Your task to perform on an android device: Go to notification settings Image 0: 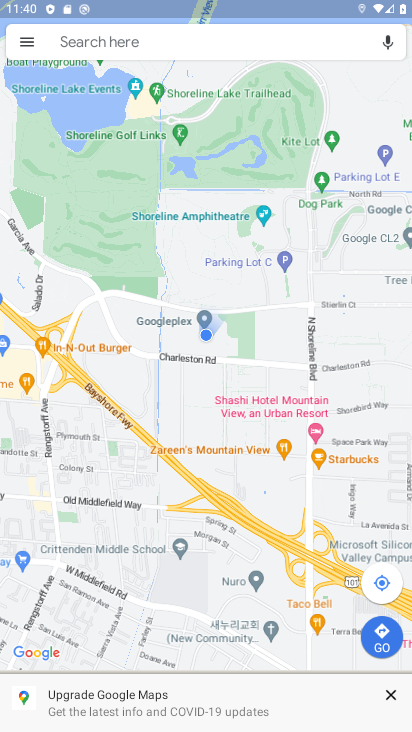
Step 0: press home button
Your task to perform on an android device: Go to notification settings Image 1: 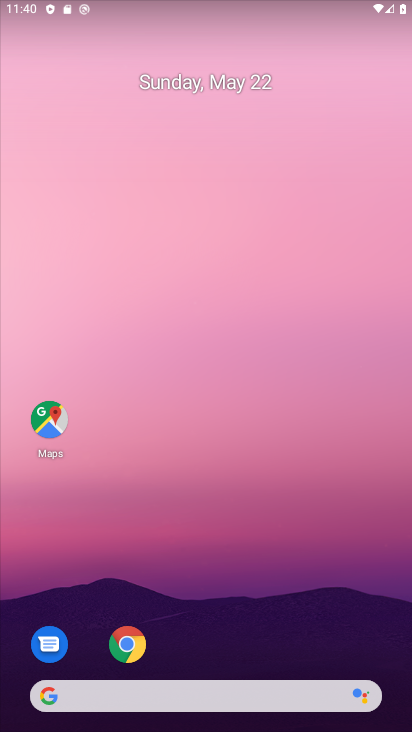
Step 1: drag from (357, 667) to (341, 196)
Your task to perform on an android device: Go to notification settings Image 2: 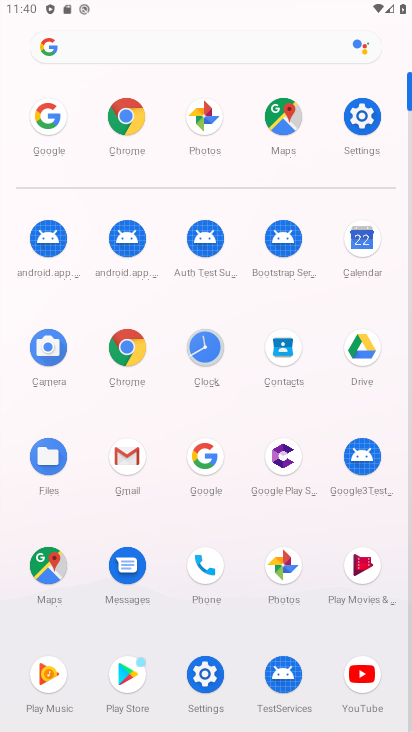
Step 2: click (200, 682)
Your task to perform on an android device: Go to notification settings Image 3: 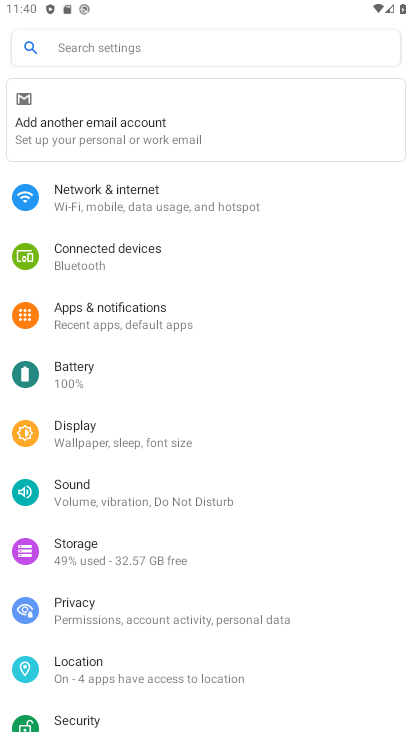
Step 3: click (125, 302)
Your task to perform on an android device: Go to notification settings Image 4: 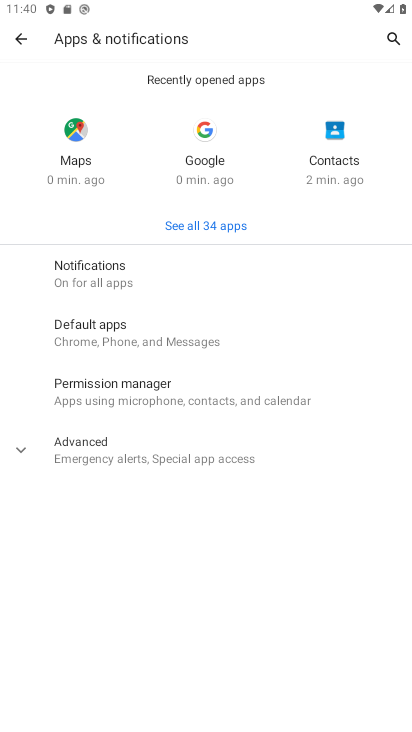
Step 4: click (125, 302)
Your task to perform on an android device: Go to notification settings Image 5: 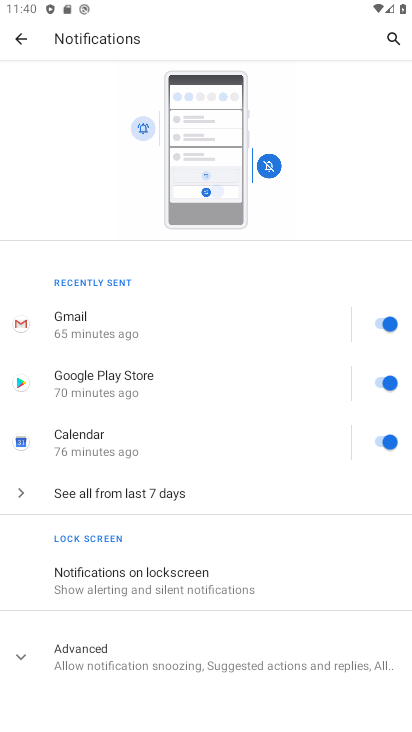
Step 5: task complete